Your task to perform on an android device: What is the news today? Image 0: 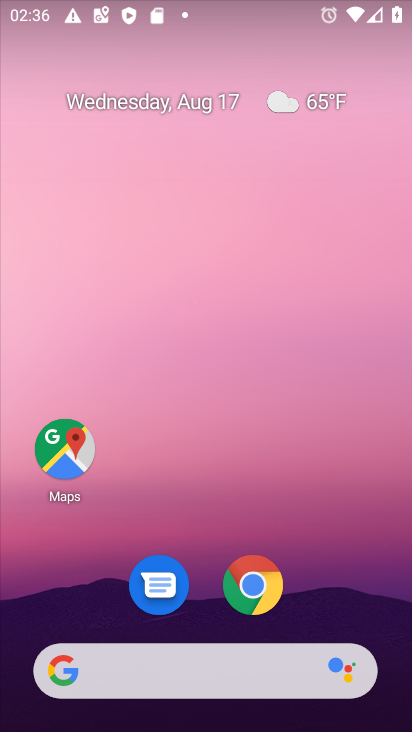
Step 0: click (168, 670)
Your task to perform on an android device: What is the news today? Image 1: 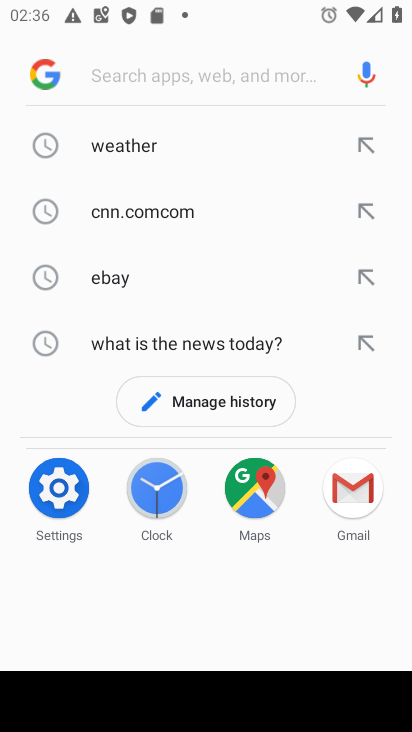
Step 1: click (191, 343)
Your task to perform on an android device: What is the news today? Image 2: 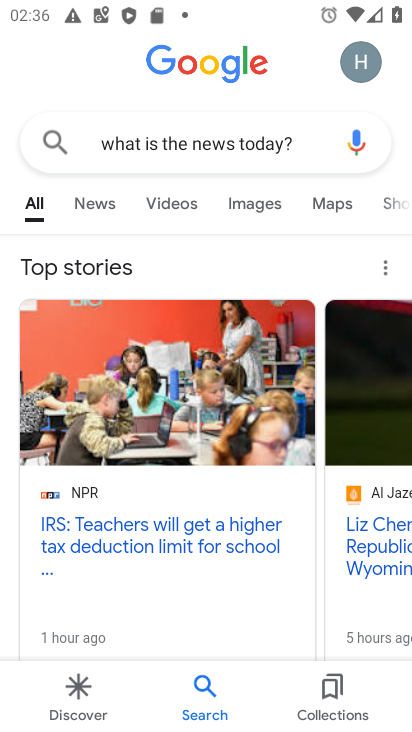
Step 2: click (112, 204)
Your task to perform on an android device: What is the news today? Image 3: 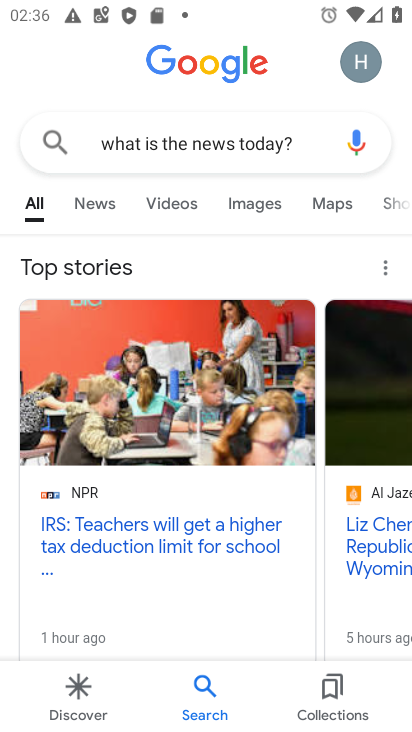
Step 3: click (92, 195)
Your task to perform on an android device: What is the news today? Image 4: 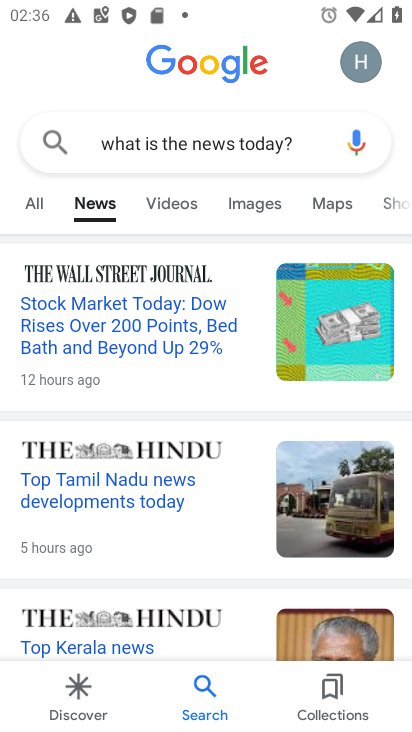
Step 4: task complete